Your task to perform on an android device: Go to CNN.com Image 0: 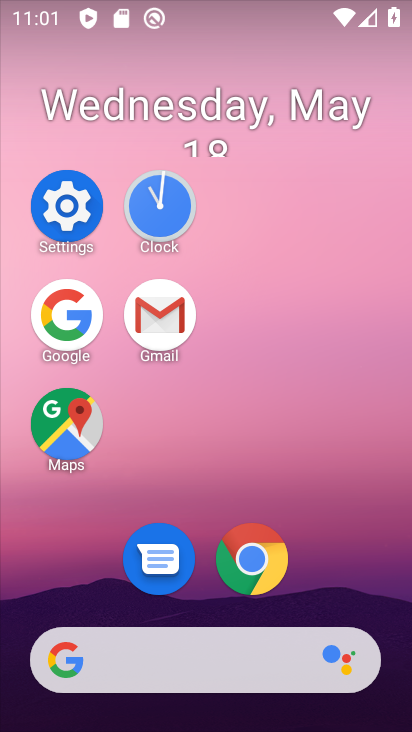
Step 0: click (273, 550)
Your task to perform on an android device: Go to CNN.com Image 1: 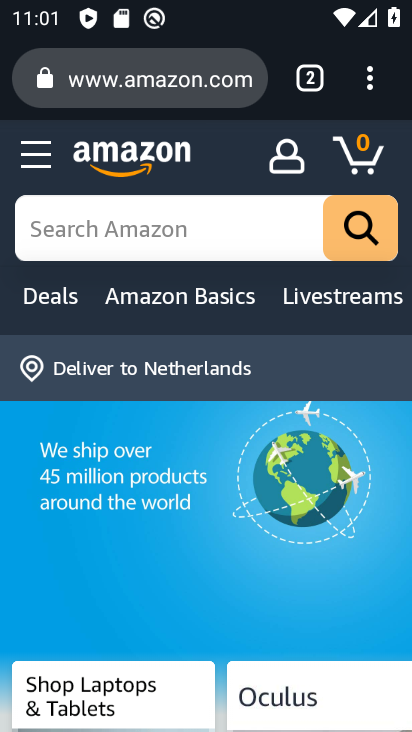
Step 1: click (316, 88)
Your task to perform on an android device: Go to CNN.com Image 2: 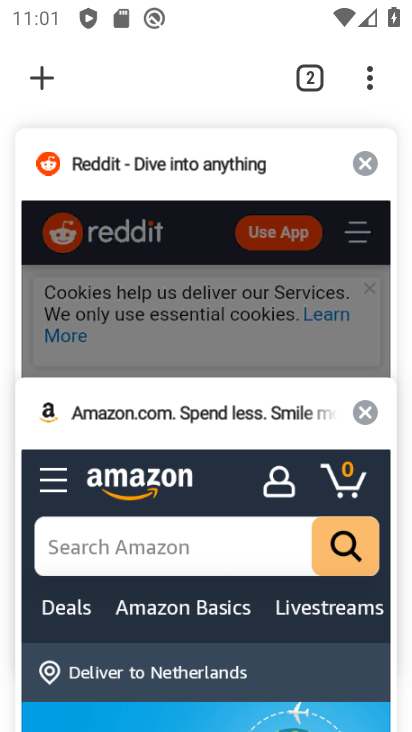
Step 2: click (47, 65)
Your task to perform on an android device: Go to CNN.com Image 3: 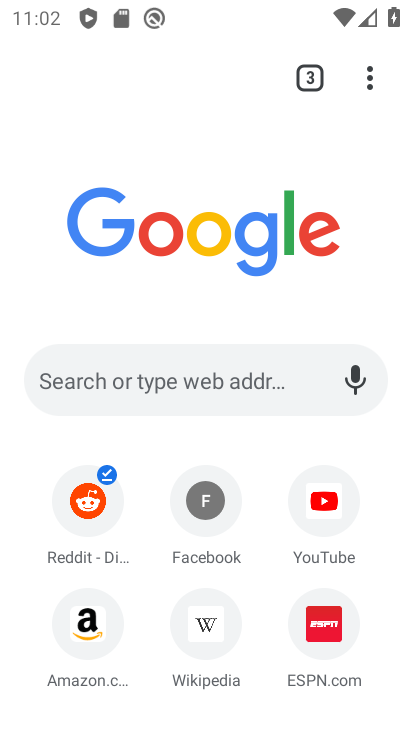
Step 3: click (196, 376)
Your task to perform on an android device: Go to CNN.com Image 4: 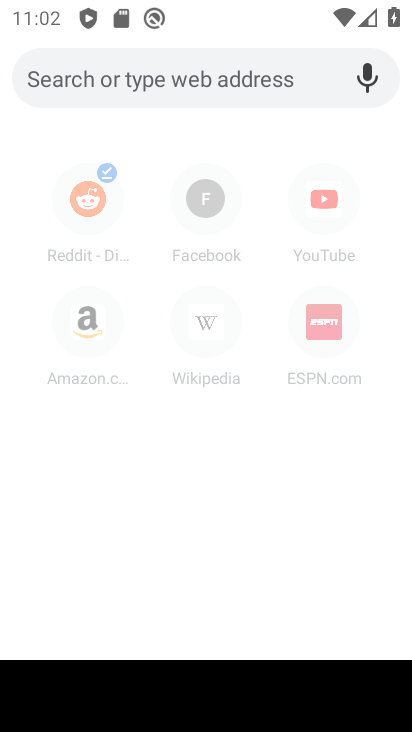
Step 4: type "cnn"
Your task to perform on an android device: Go to CNN.com Image 5: 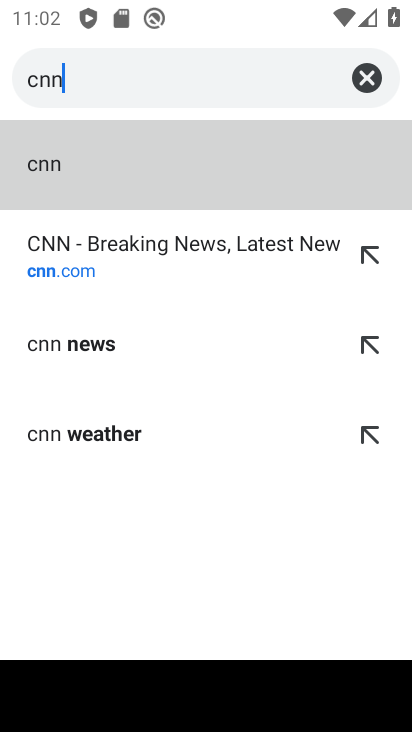
Step 5: click (137, 278)
Your task to perform on an android device: Go to CNN.com Image 6: 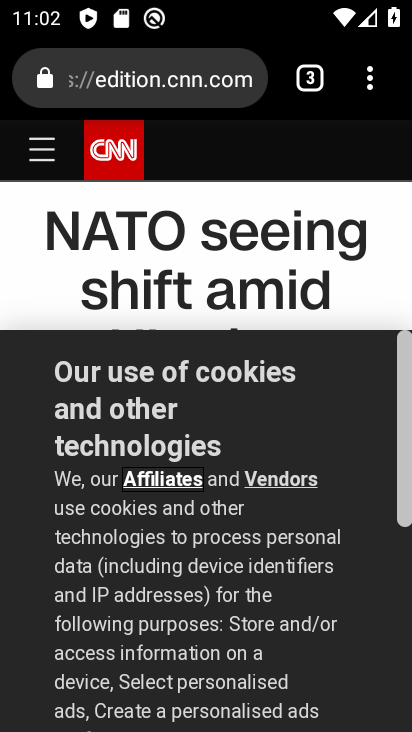
Step 6: task complete